Your task to perform on an android device: change timer sound Image 0: 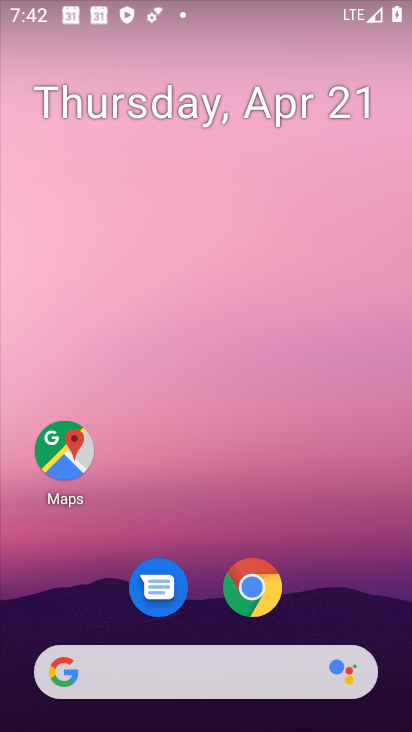
Step 0: drag from (354, 305) to (347, 140)
Your task to perform on an android device: change timer sound Image 1: 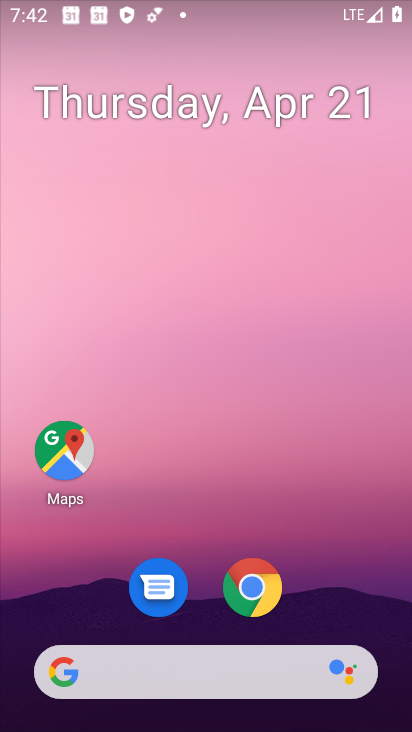
Step 1: drag from (360, 500) to (317, 46)
Your task to perform on an android device: change timer sound Image 2: 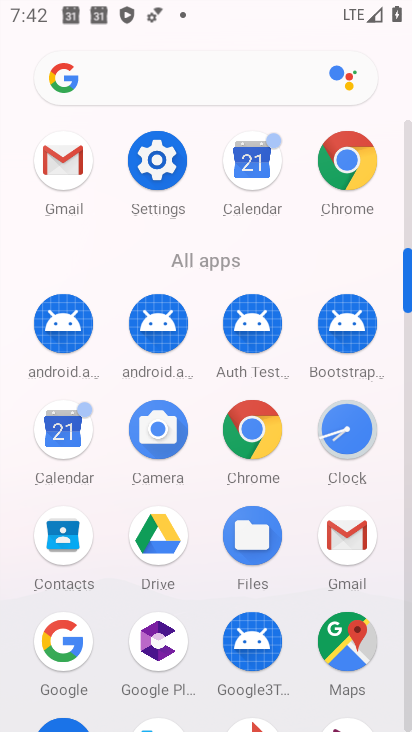
Step 2: click (349, 439)
Your task to perform on an android device: change timer sound Image 3: 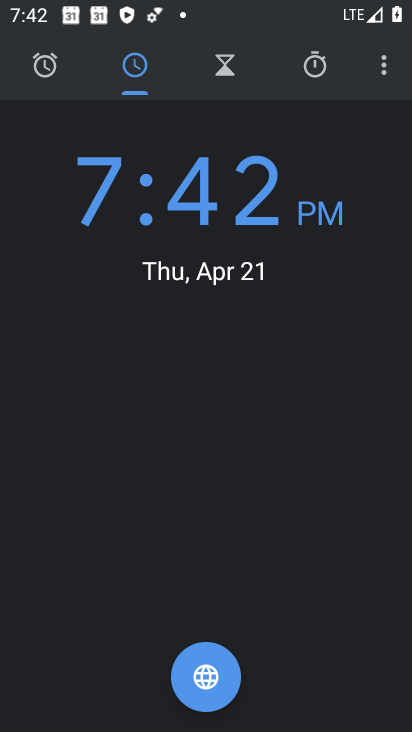
Step 3: click (315, 67)
Your task to perform on an android device: change timer sound Image 4: 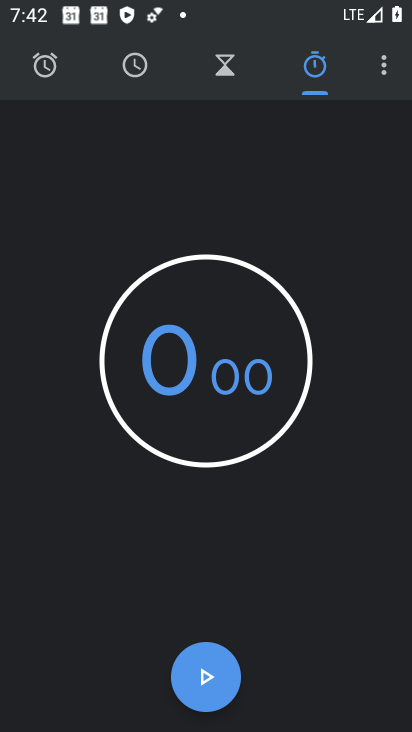
Step 4: click (381, 63)
Your task to perform on an android device: change timer sound Image 5: 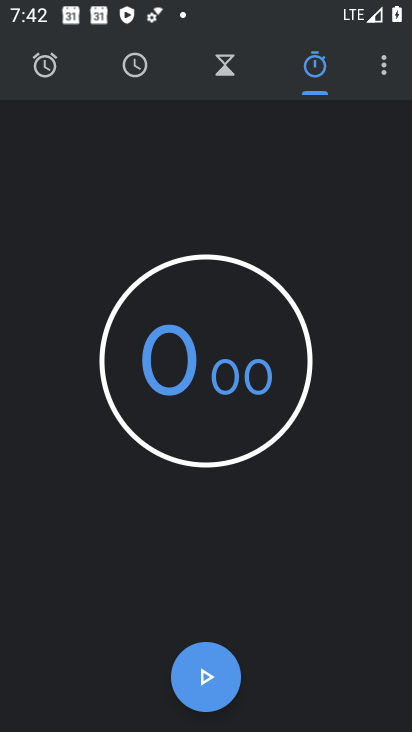
Step 5: click (387, 64)
Your task to perform on an android device: change timer sound Image 6: 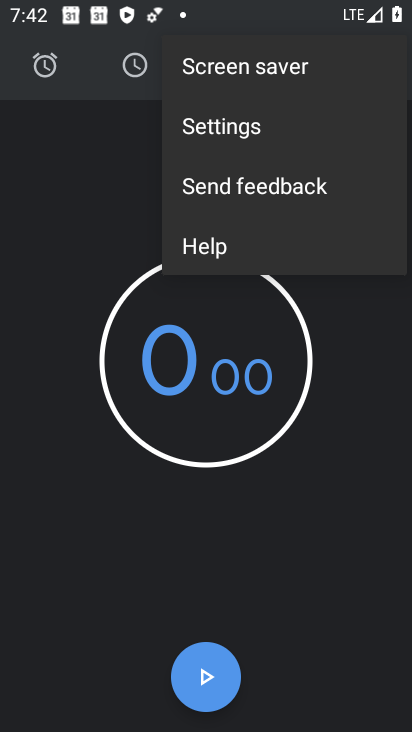
Step 6: click (233, 120)
Your task to perform on an android device: change timer sound Image 7: 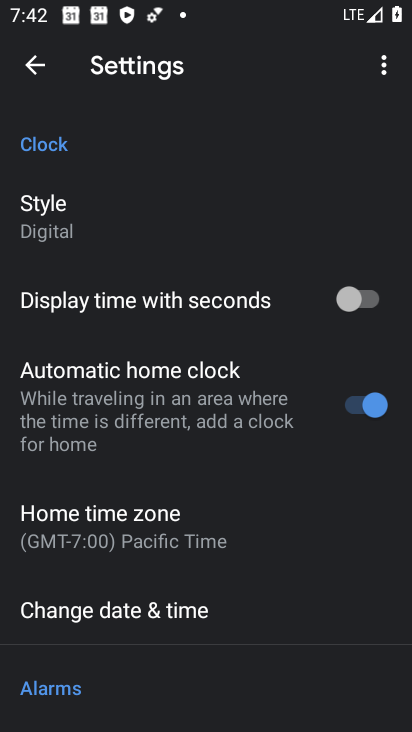
Step 7: drag from (264, 673) to (270, 258)
Your task to perform on an android device: change timer sound Image 8: 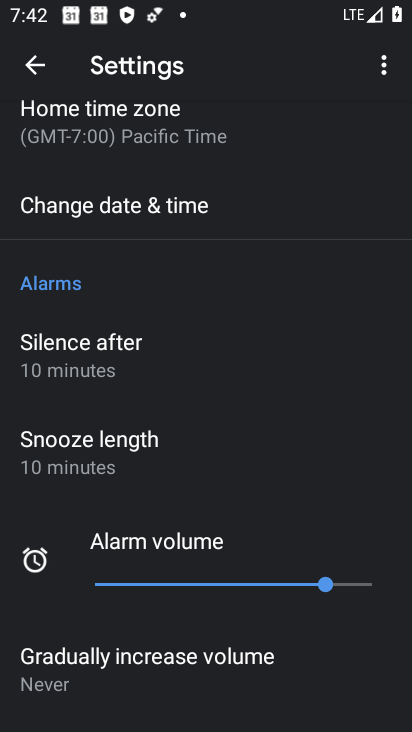
Step 8: drag from (252, 523) to (252, 315)
Your task to perform on an android device: change timer sound Image 9: 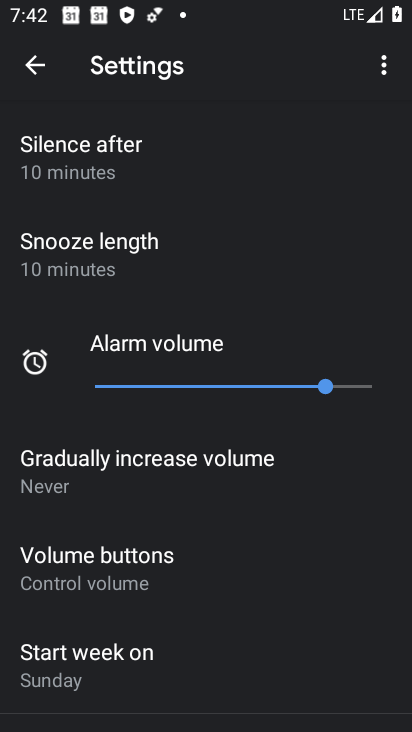
Step 9: drag from (271, 490) to (279, 297)
Your task to perform on an android device: change timer sound Image 10: 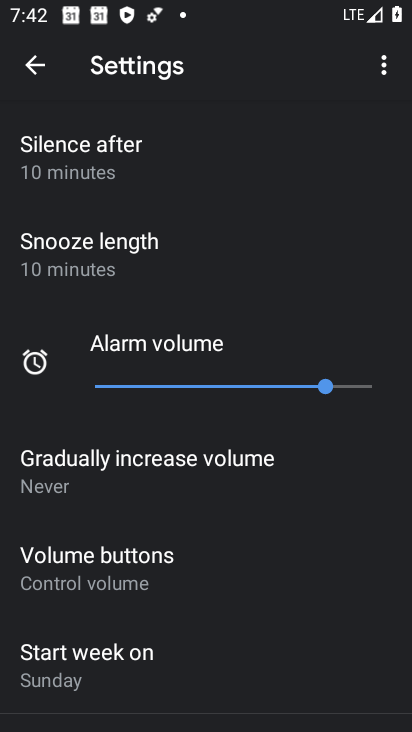
Step 10: drag from (303, 671) to (287, 179)
Your task to perform on an android device: change timer sound Image 11: 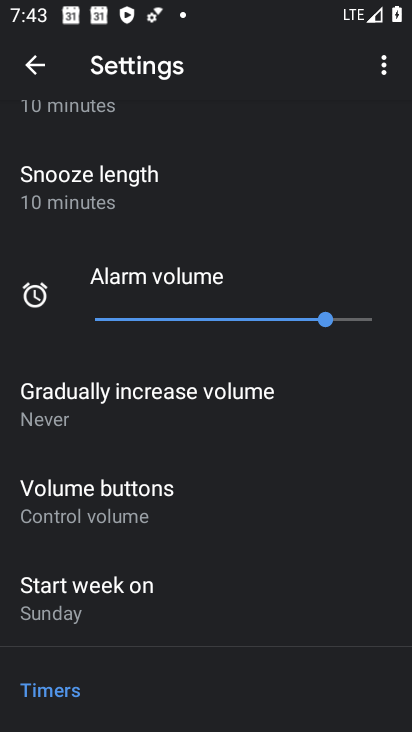
Step 11: drag from (261, 504) to (256, 228)
Your task to perform on an android device: change timer sound Image 12: 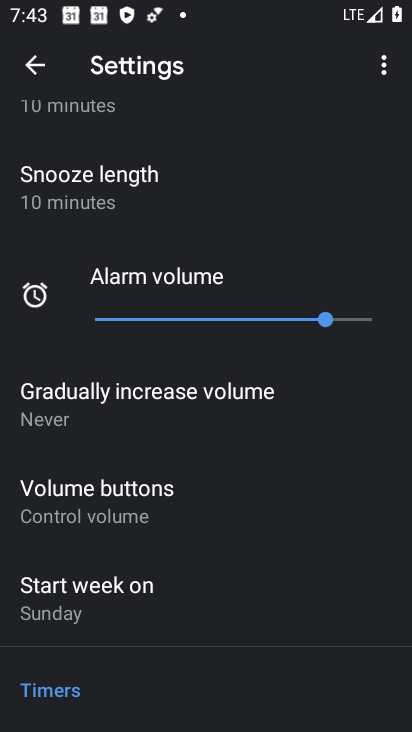
Step 12: drag from (312, 360) to (300, 133)
Your task to perform on an android device: change timer sound Image 13: 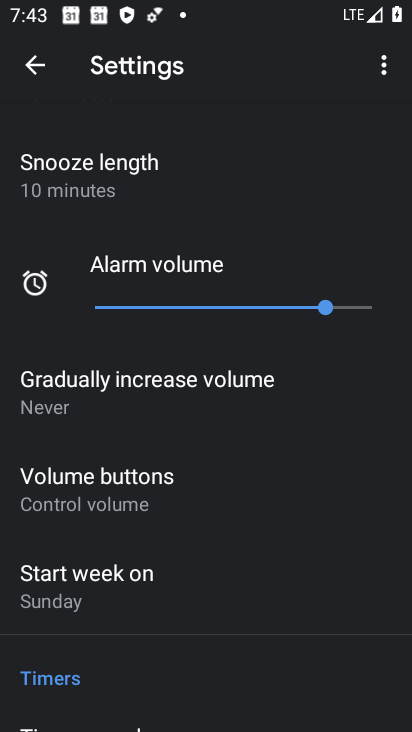
Step 13: drag from (307, 644) to (297, 229)
Your task to perform on an android device: change timer sound Image 14: 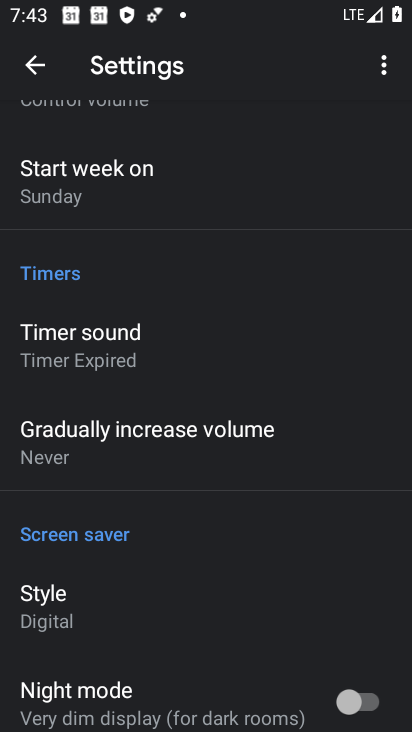
Step 14: drag from (230, 689) to (235, 289)
Your task to perform on an android device: change timer sound Image 15: 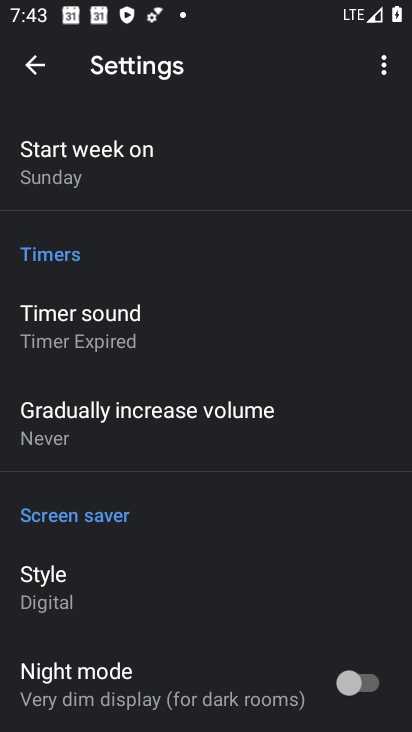
Step 15: drag from (277, 554) to (279, 227)
Your task to perform on an android device: change timer sound Image 16: 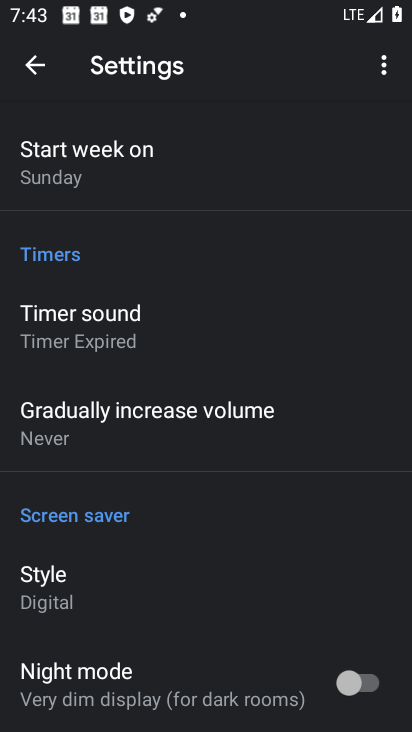
Step 16: click (86, 326)
Your task to perform on an android device: change timer sound Image 17: 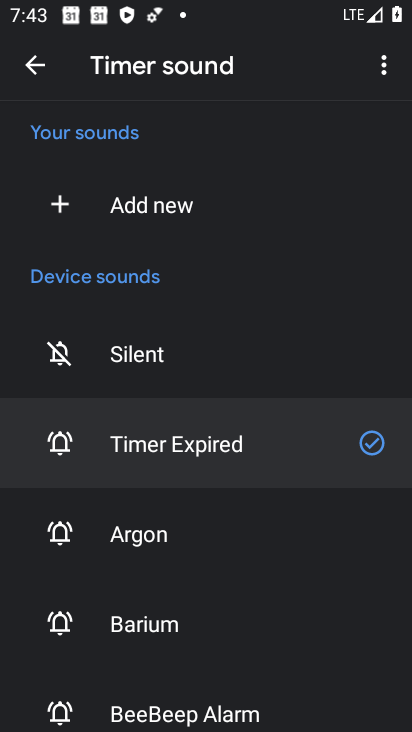
Step 17: click (56, 535)
Your task to perform on an android device: change timer sound Image 18: 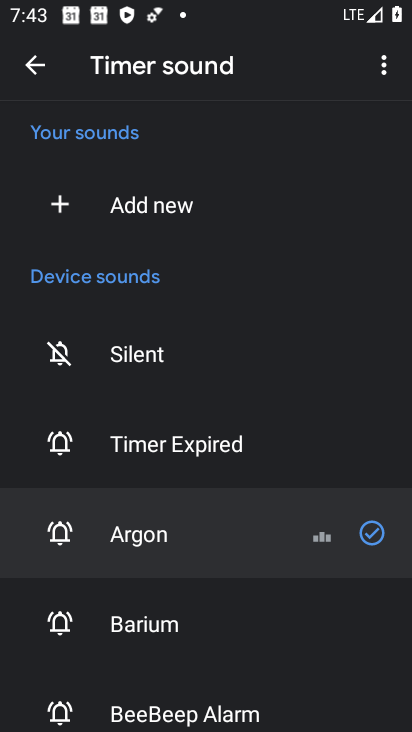
Step 18: task complete